Your task to perform on an android device: Open Google Maps and go to "Timeline" Image 0: 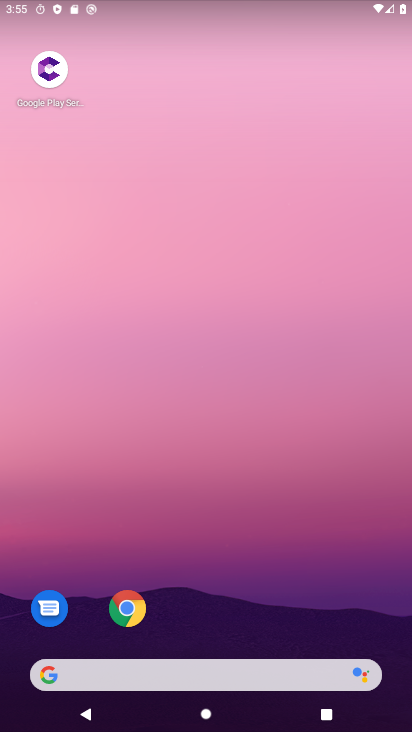
Step 0: drag from (221, 599) to (266, 85)
Your task to perform on an android device: Open Google Maps and go to "Timeline" Image 1: 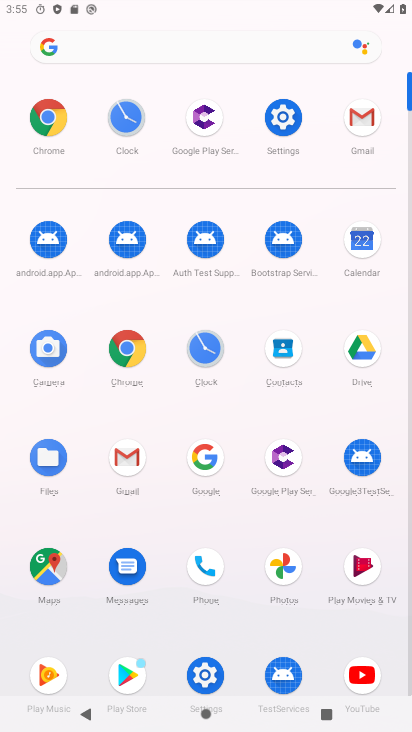
Step 1: click (51, 565)
Your task to perform on an android device: Open Google Maps and go to "Timeline" Image 2: 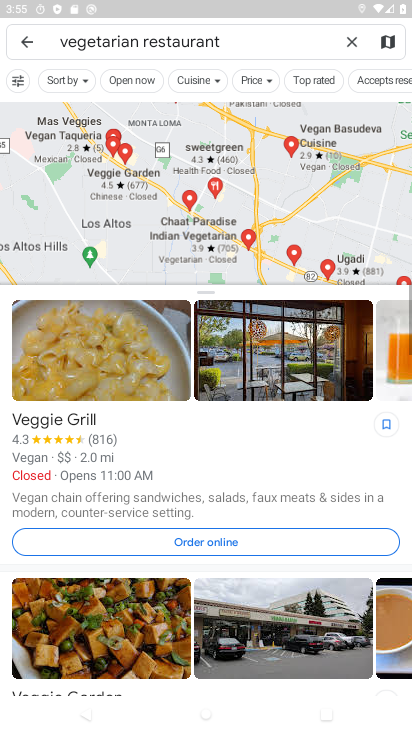
Step 2: click (30, 42)
Your task to perform on an android device: Open Google Maps and go to "Timeline" Image 3: 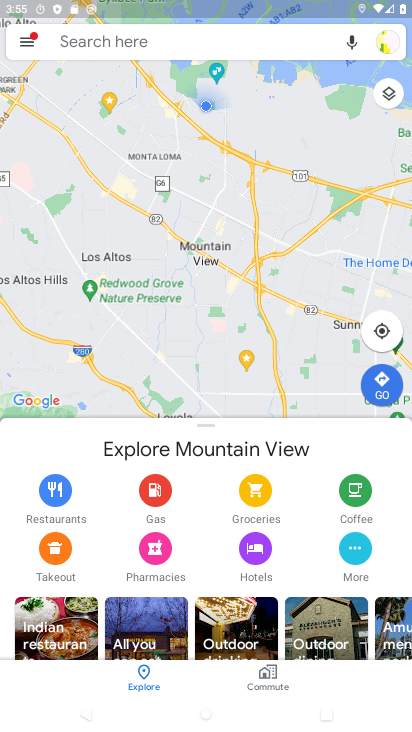
Step 3: click (32, 39)
Your task to perform on an android device: Open Google Maps and go to "Timeline" Image 4: 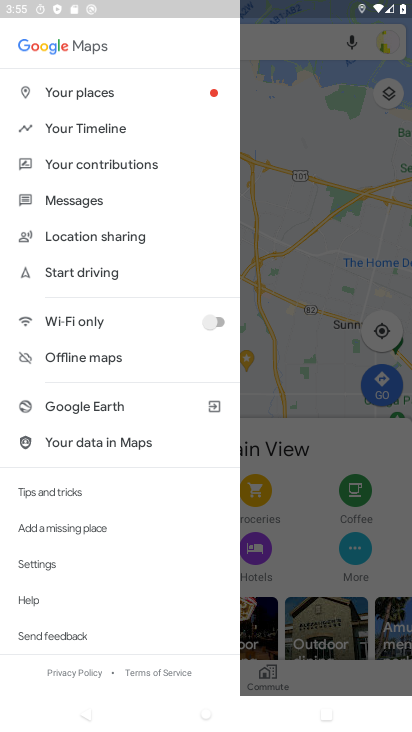
Step 4: click (81, 127)
Your task to perform on an android device: Open Google Maps and go to "Timeline" Image 5: 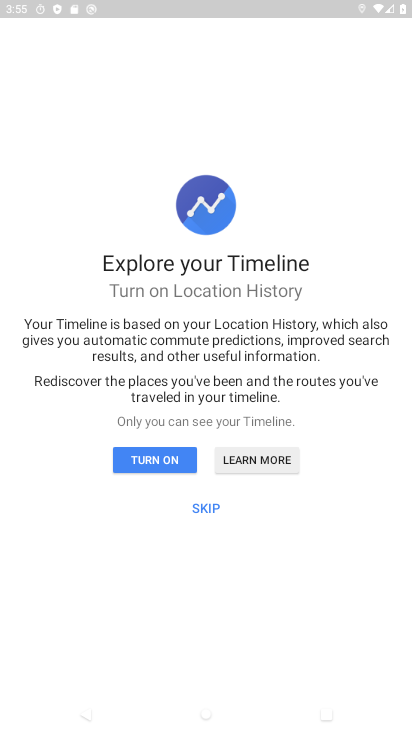
Step 5: click (205, 506)
Your task to perform on an android device: Open Google Maps and go to "Timeline" Image 6: 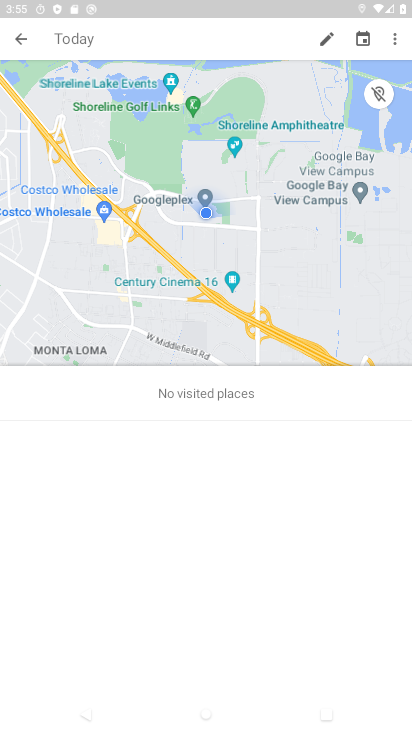
Step 6: task complete